Your task to perform on an android device: toggle improve location accuracy Image 0: 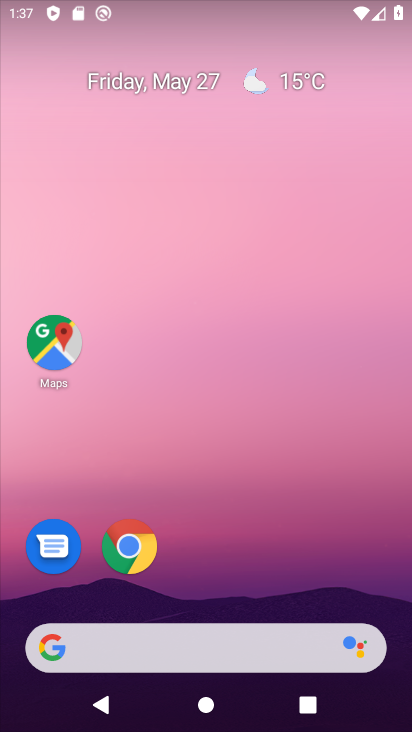
Step 0: drag from (344, 557) to (299, 60)
Your task to perform on an android device: toggle improve location accuracy Image 1: 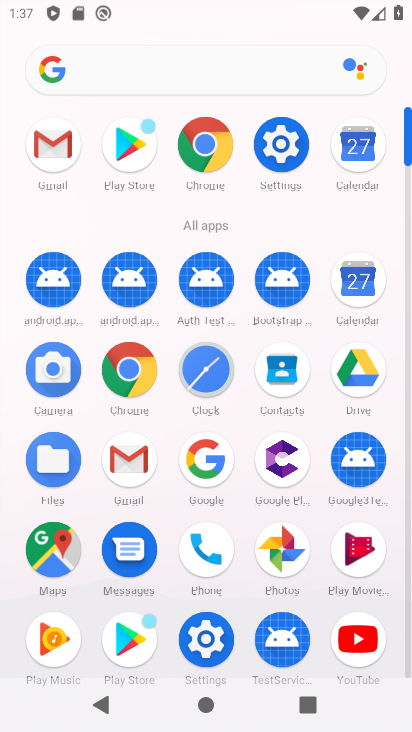
Step 1: click (215, 636)
Your task to perform on an android device: toggle improve location accuracy Image 2: 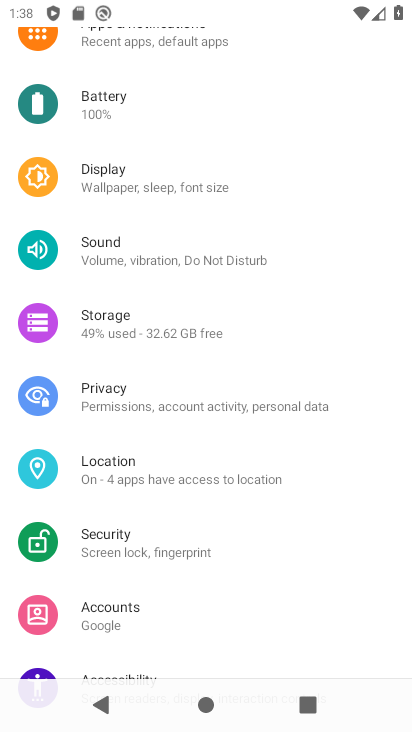
Step 2: drag from (372, 613) to (361, 227)
Your task to perform on an android device: toggle improve location accuracy Image 3: 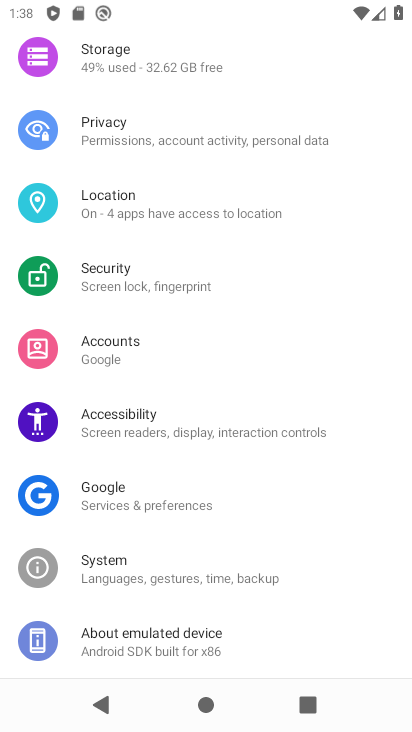
Step 3: drag from (244, 263) to (206, 611)
Your task to perform on an android device: toggle improve location accuracy Image 4: 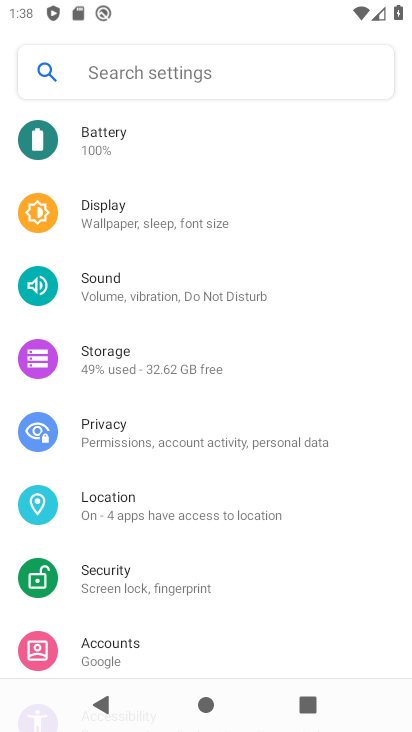
Step 4: drag from (208, 531) to (262, 217)
Your task to perform on an android device: toggle improve location accuracy Image 5: 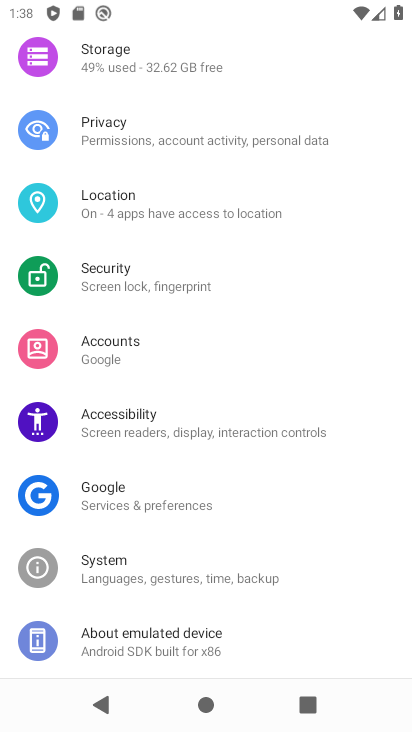
Step 5: click (232, 230)
Your task to perform on an android device: toggle improve location accuracy Image 6: 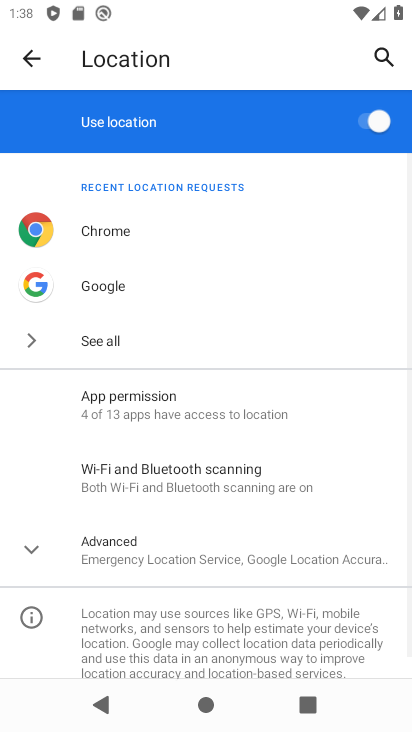
Step 6: click (190, 551)
Your task to perform on an android device: toggle improve location accuracy Image 7: 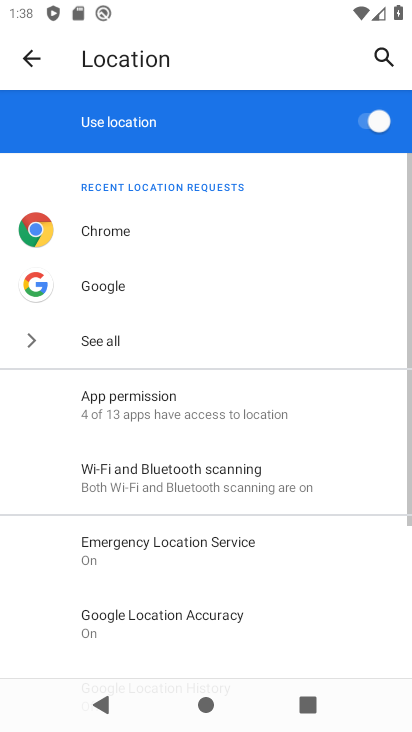
Step 7: drag from (228, 632) to (290, 332)
Your task to perform on an android device: toggle improve location accuracy Image 8: 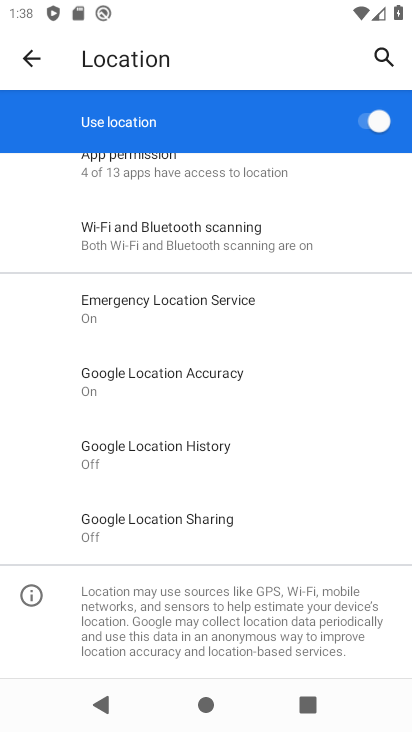
Step 8: click (188, 380)
Your task to perform on an android device: toggle improve location accuracy Image 9: 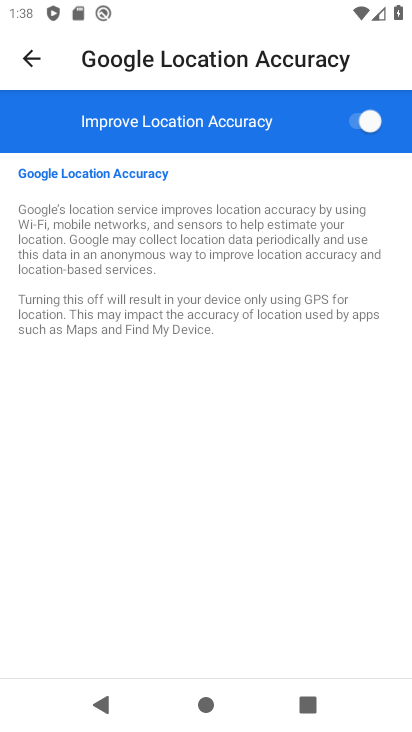
Step 9: click (365, 120)
Your task to perform on an android device: toggle improve location accuracy Image 10: 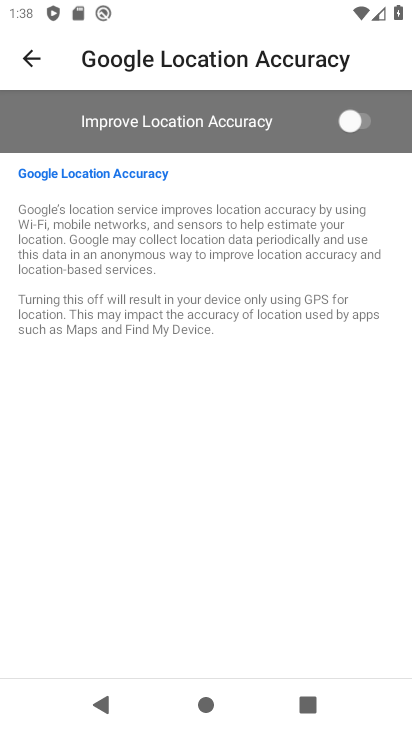
Step 10: task complete